Your task to perform on an android device: Open the map Image 0: 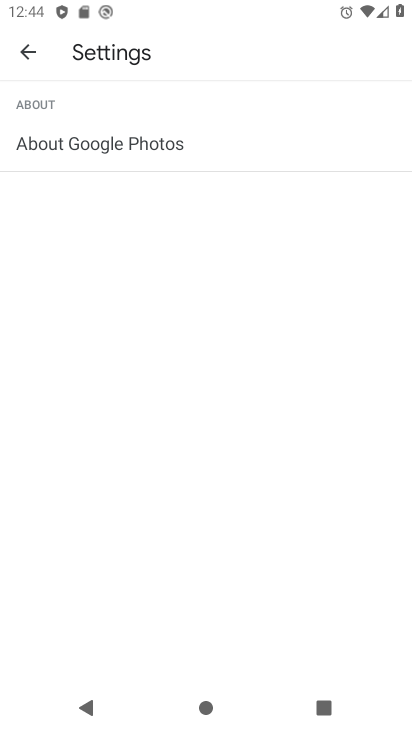
Step 0: press home button
Your task to perform on an android device: Open the map Image 1: 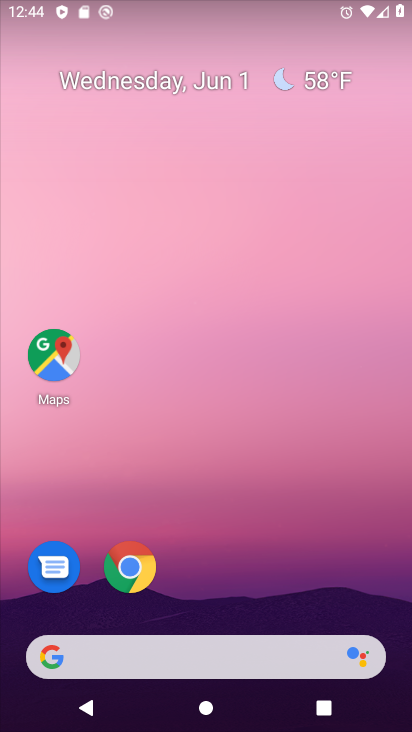
Step 1: click (56, 356)
Your task to perform on an android device: Open the map Image 2: 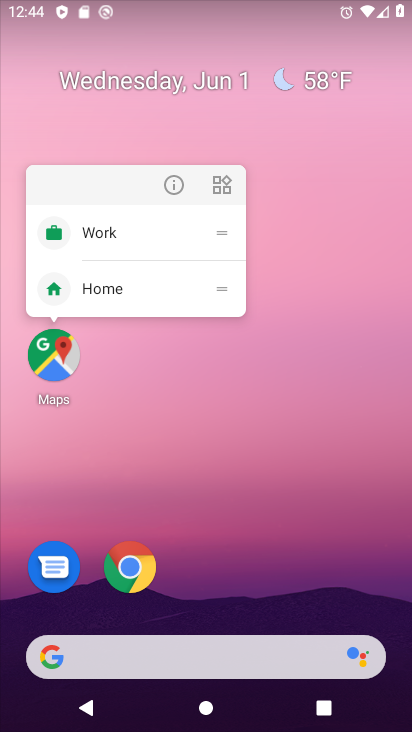
Step 2: click (58, 356)
Your task to perform on an android device: Open the map Image 3: 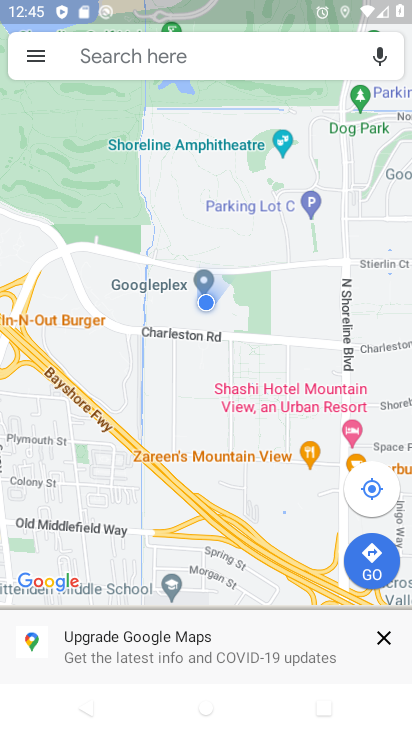
Step 3: task complete